Your task to perform on an android device: toggle javascript in the chrome app Image 0: 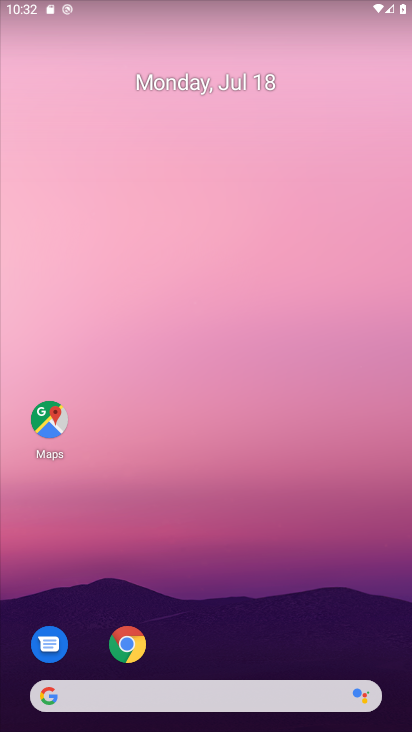
Step 0: click (128, 645)
Your task to perform on an android device: toggle javascript in the chrome app Image 1: 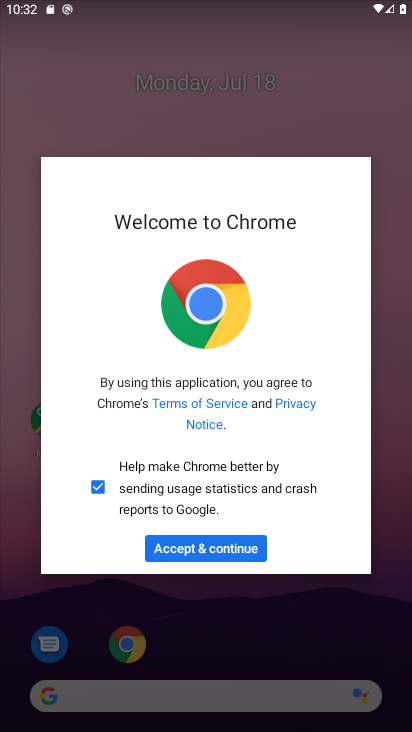
Step 1: click (242, 549)
Your task to perform on an android device: toggle javascript in the chrome app Image 2: 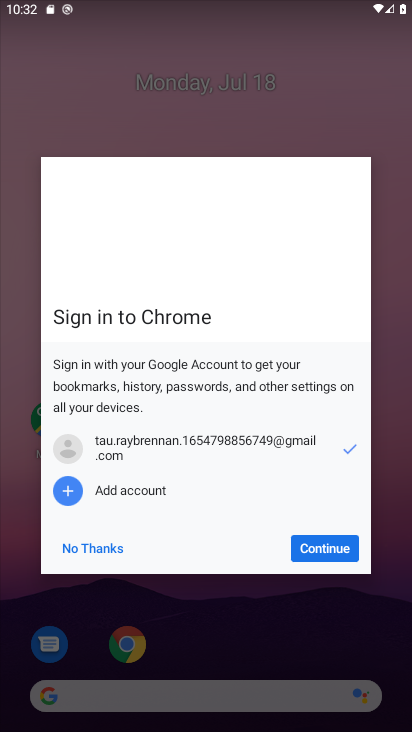
Step 2: click (308, 550)
Your task to perform on an android device: toggle javascript in the chrome app Image 3: 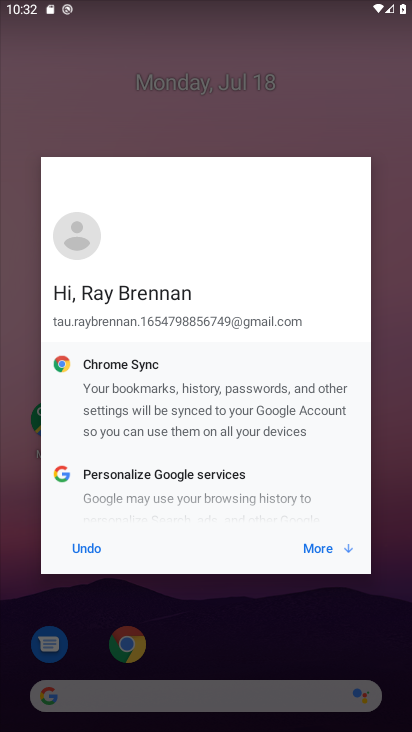
Step 3: click (308, 550)
Your task to perform on an android device: toggle javascript in the chrome app Image 4: 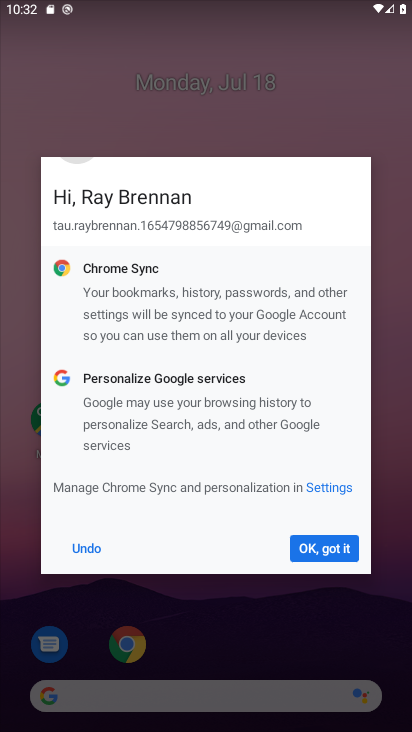
Step 4: click (316, 551)
Your task to perform on an android device: toggle javascript in the chrome app Image 5: 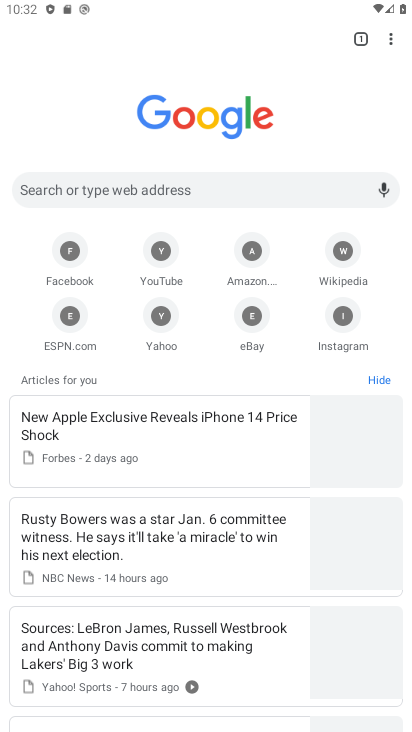
Step 5: click (388, 36)
Your task to perform on an android device: toggle javascript in the chrome app Image 6: 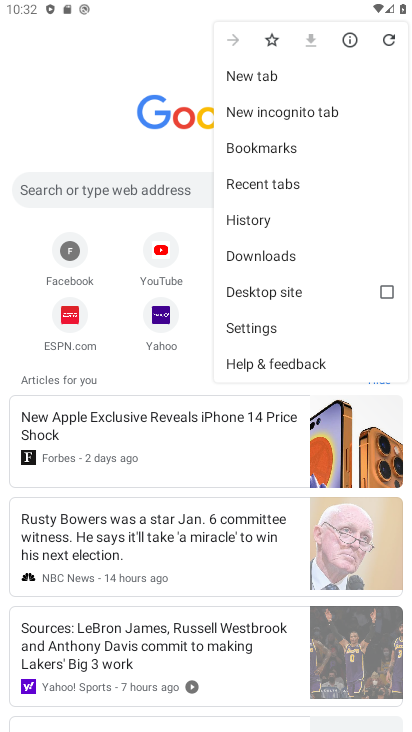
Step 6: click (280, 327)
Your task to perform on an android device: toggle javascript in the chrome app Image 7: 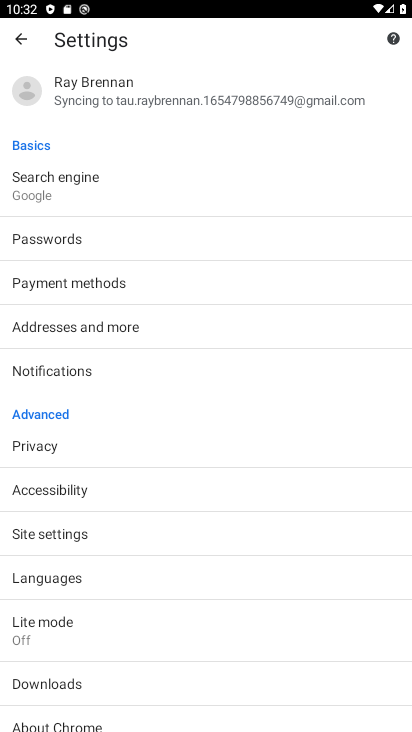
Step 7: click (47, 540)
Your task to perform on an android device: toggle javascript in the chrome app Image 8: 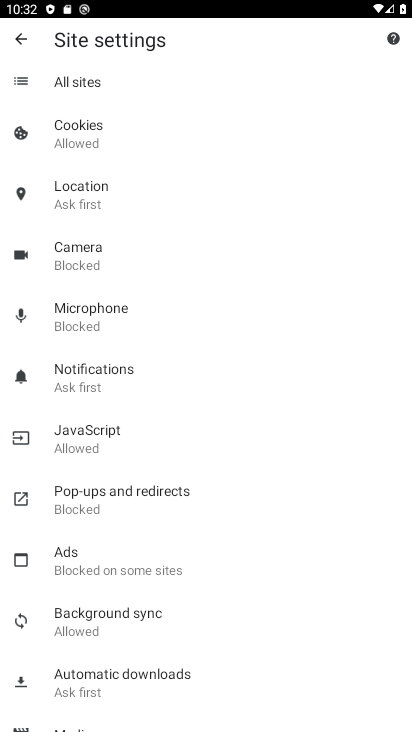
Step 8: click (95, 432)
Your task to perform on an android device: toggle javascript in the chrome app Image 9: 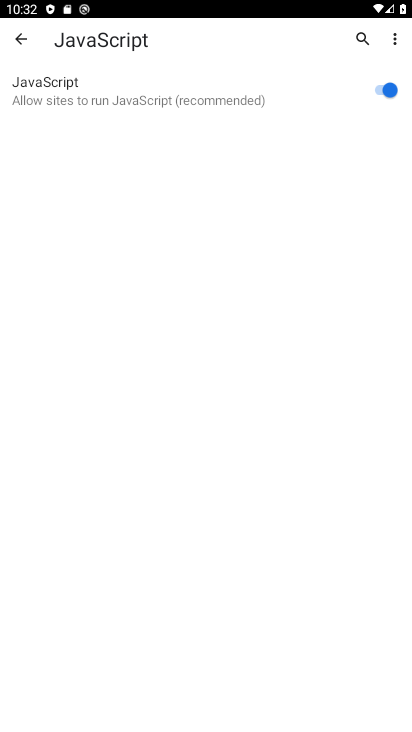
Step 9: click (393, 95)
Your task to perform on an android device: toggle javascript in the chrome app Image 10: 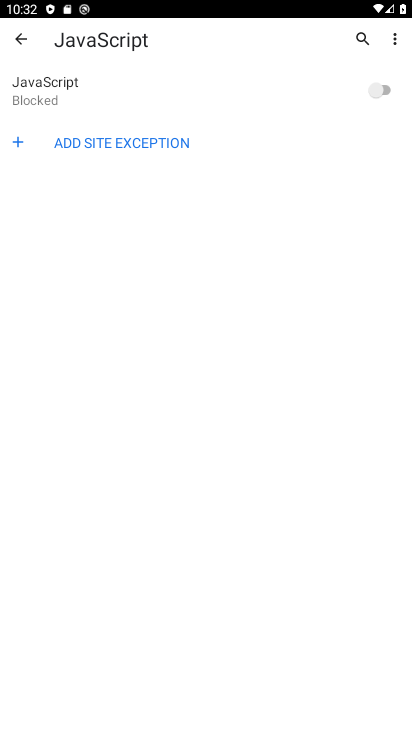
Step 10: task complete